Your task to perform on an android device: Go to Amazon Image 0: 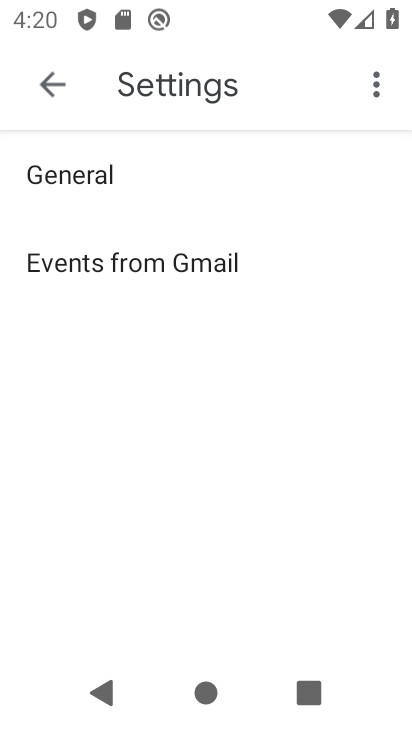
Step 0: press home button
Your task to perform on an android device: Go to Amazon Image 1: 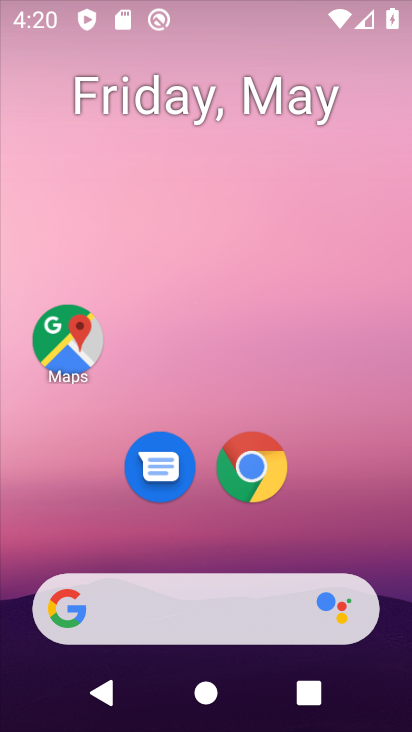
Step 1: drag from (310, 519) to (364, 105)
Your task to perform on an android device: Go to Amazon Image 2: 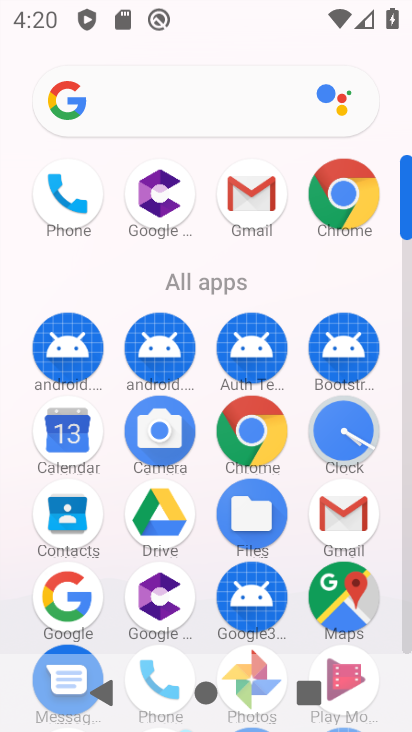
Step 2: click (346, 214)
Your task to perform on an android device: Go to Amazon Image 3: 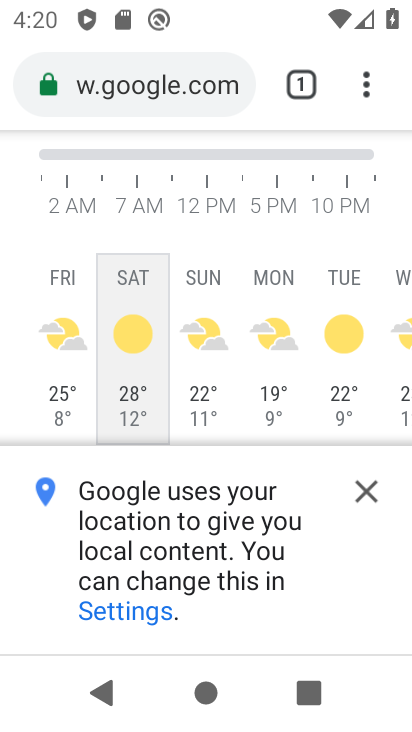
Step 3: click (203, 99)
Your task to perform on an android device: Go to Amazon Image 4: 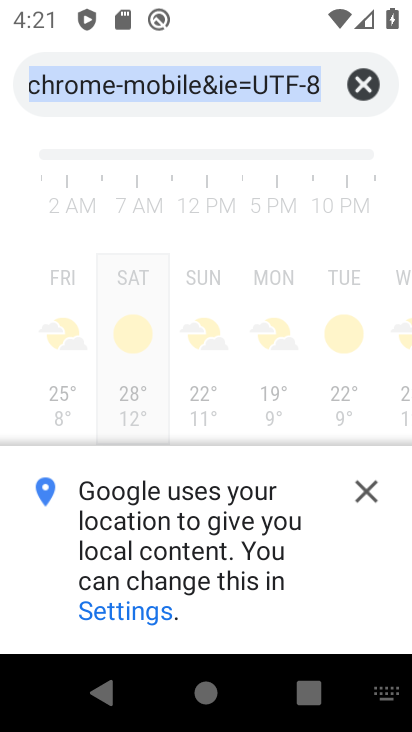
Step 4: type "amazon.com"
Your task to perform on an android device: Go to Amazon Image 5: 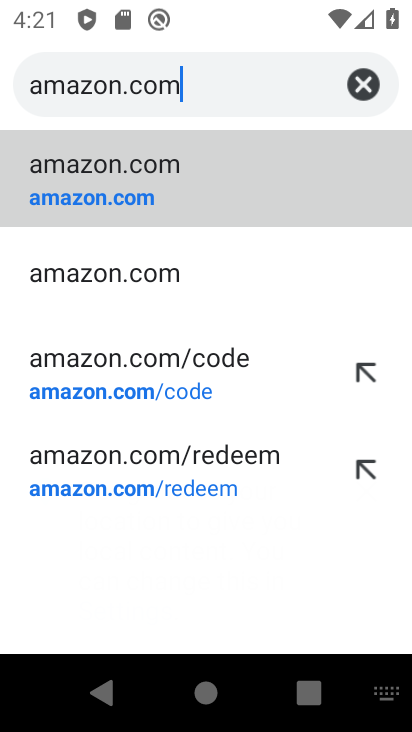
Step 5: click (110, 202)
Your task to perform on an android device: Go to Amazon Image 6: 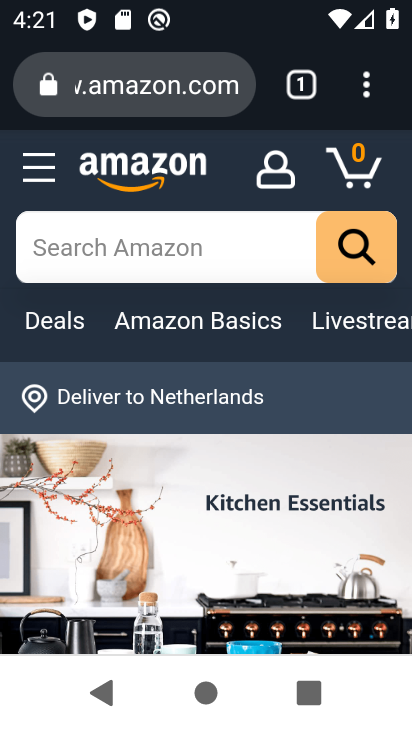
Step 6: task complete